Your task to perform on an android device: turn on wifi Image 0: 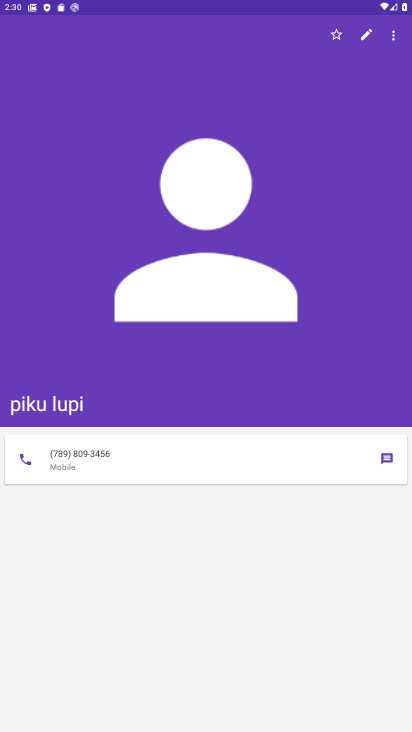
Step 0: press home button
Your task to perform on an android device: turn on wifi Image 1: 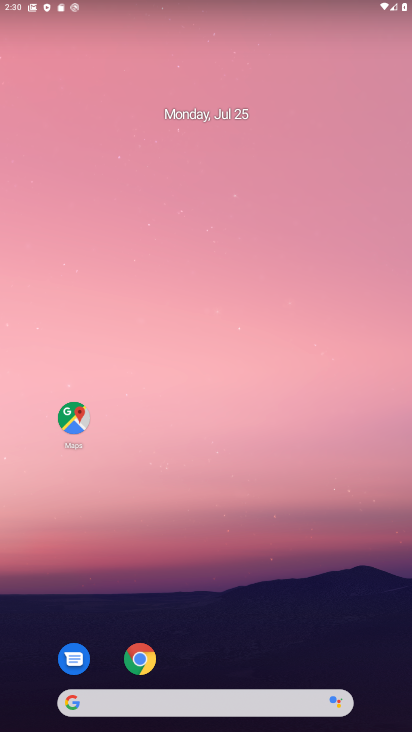
Step 1: drag from (222, 700) to (294, 146)
Your task to perform on an android device: turn on wifi Image 2: 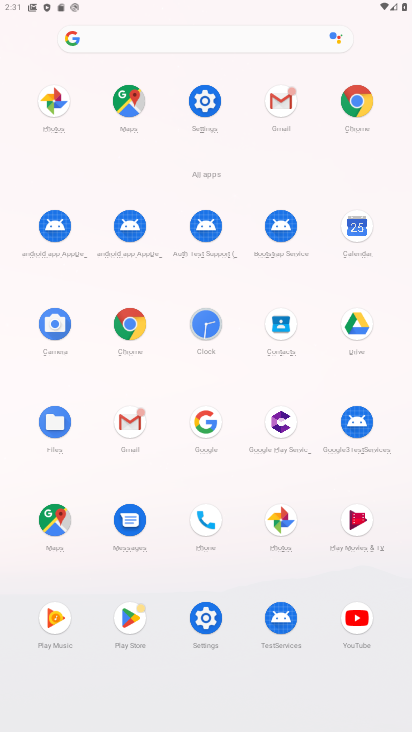
Step 2: click (207, 99)
Your task to perform on an android device: turn on wifi Image 3: 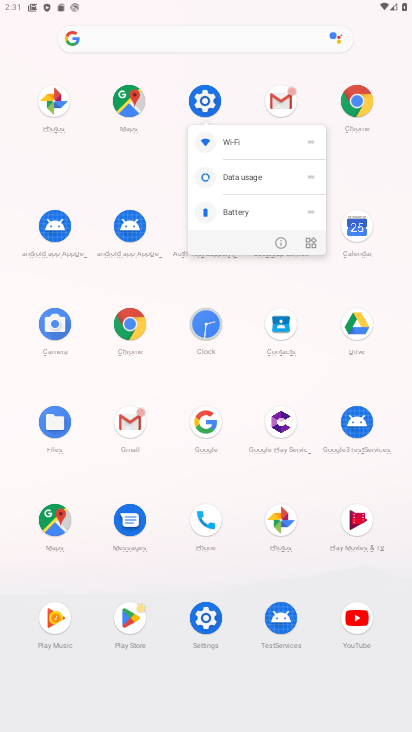
Step 3: click (207, 100)
Your task to perform on an android device: turn on wifi Image 4: 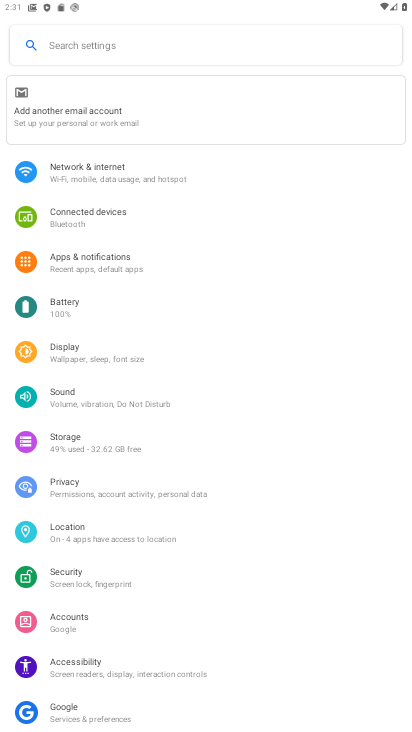
Step 4: click (138, 181)
Your task to perform on an android device: turn on wifi Image 5: 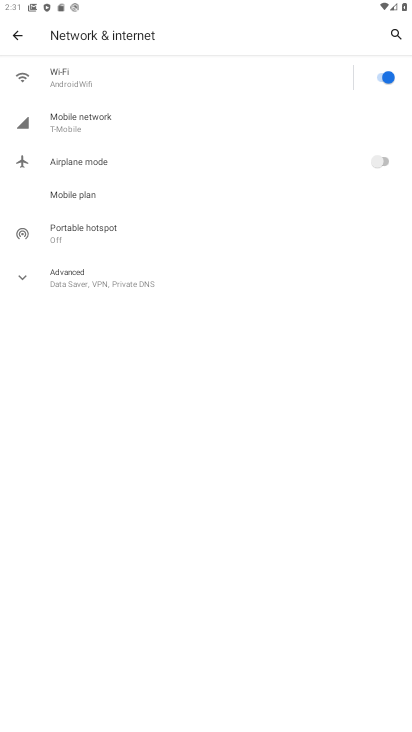
Step 5: task complete